Your task to perform on an android device: Open the Play Movies app and select the watchlist tab. Image 0: 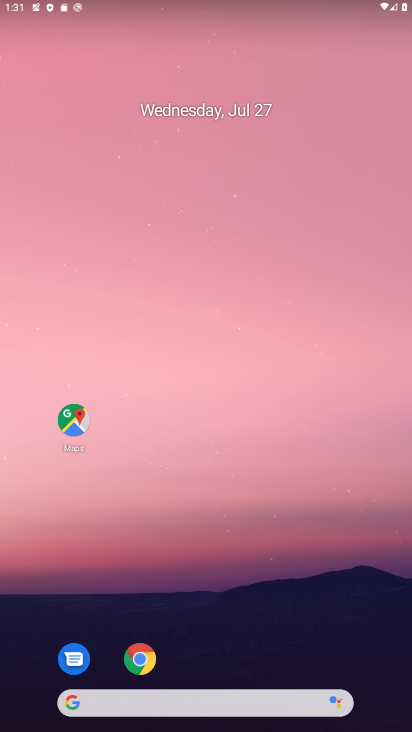
Step 0: drag from (295, 614) to (312, 11)
Your task to perform on an android device: Open the Play Movies app and select the watchlist tab. Image 1: 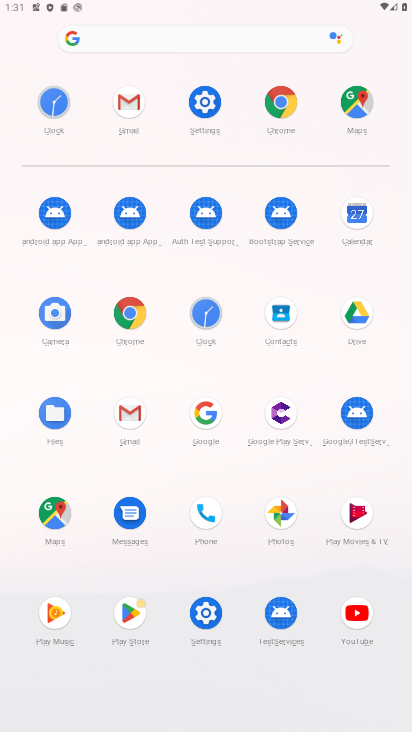
Step 1: click (362, 504)
Your task to perform on an android device: Open the Play Movies app and select the watchlist tab. Image 2: 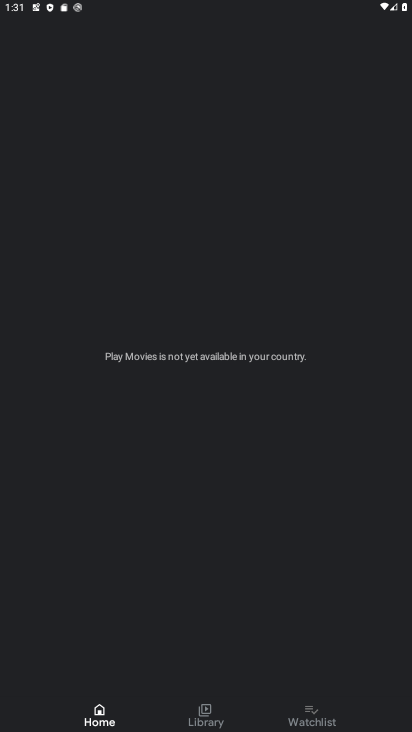
Step 2: click (308, 722)
Your task to perform on an android device: Open the Play Movies app and select the watchlist tab. Image 3: 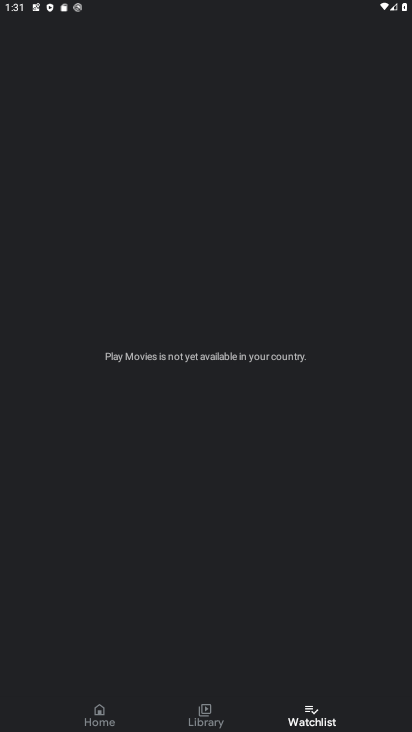
Step 3: task complete